Your task to perform on an android device: Empty the shopping cart on bestbuy. Add "panasonic triple a" to the cart on bestbuy, then select checkout. Image 0: 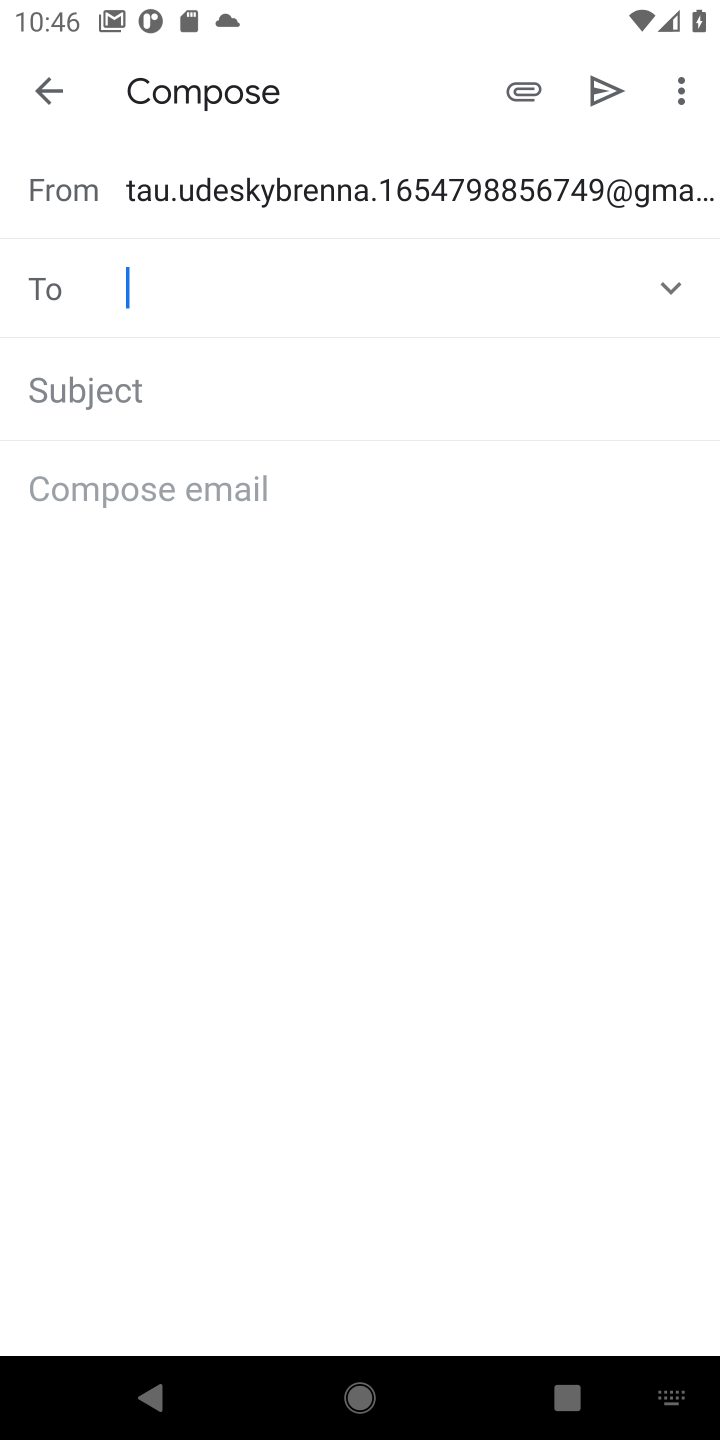
Step 0: press home button
Your task to perform on an android device: Empty the shopping cart on bestbuy. Add "panasonic triple a" to the cart on bestbuy, then select checkout. Image 1: 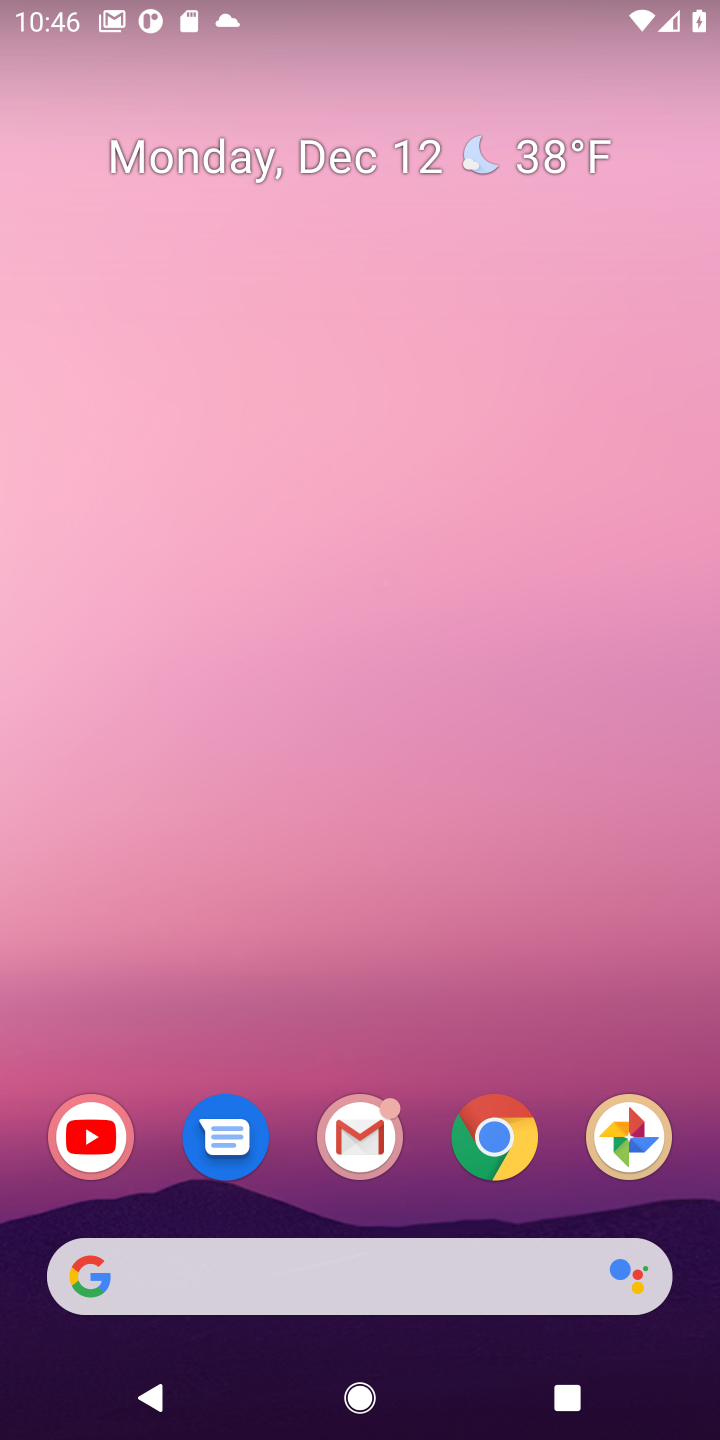
Step 1: click (400, 1273)
Your task to perform on an android device: Empty the shopping cart on bestbuy. Add "panasonic triple a" to the cart on bestbuy, then select checkout. Image 2: 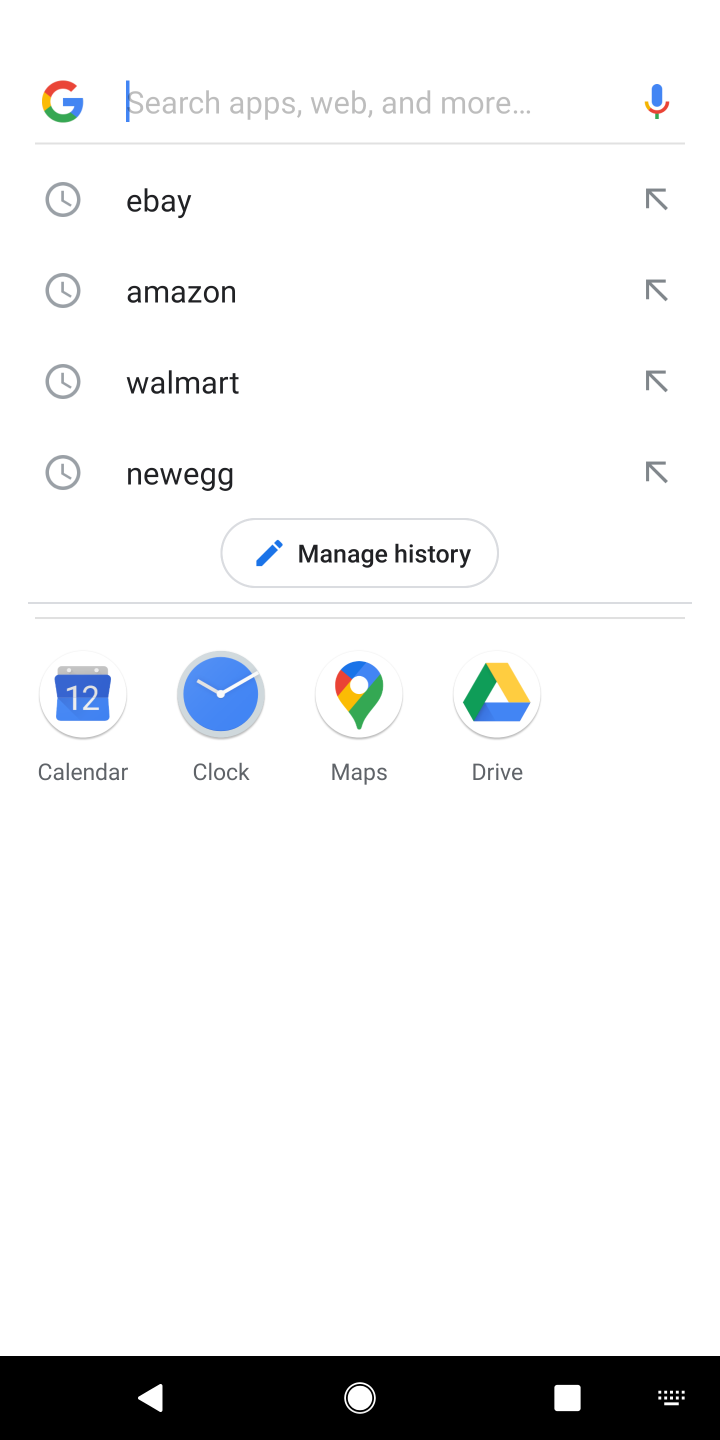
Step 2: type "bestbuy"
Your task to perform on an android device: Empty the shopping cart on bestbuy. Add "panasonic triple a" to the cart on bestbuy, then select checkout. Image 3: 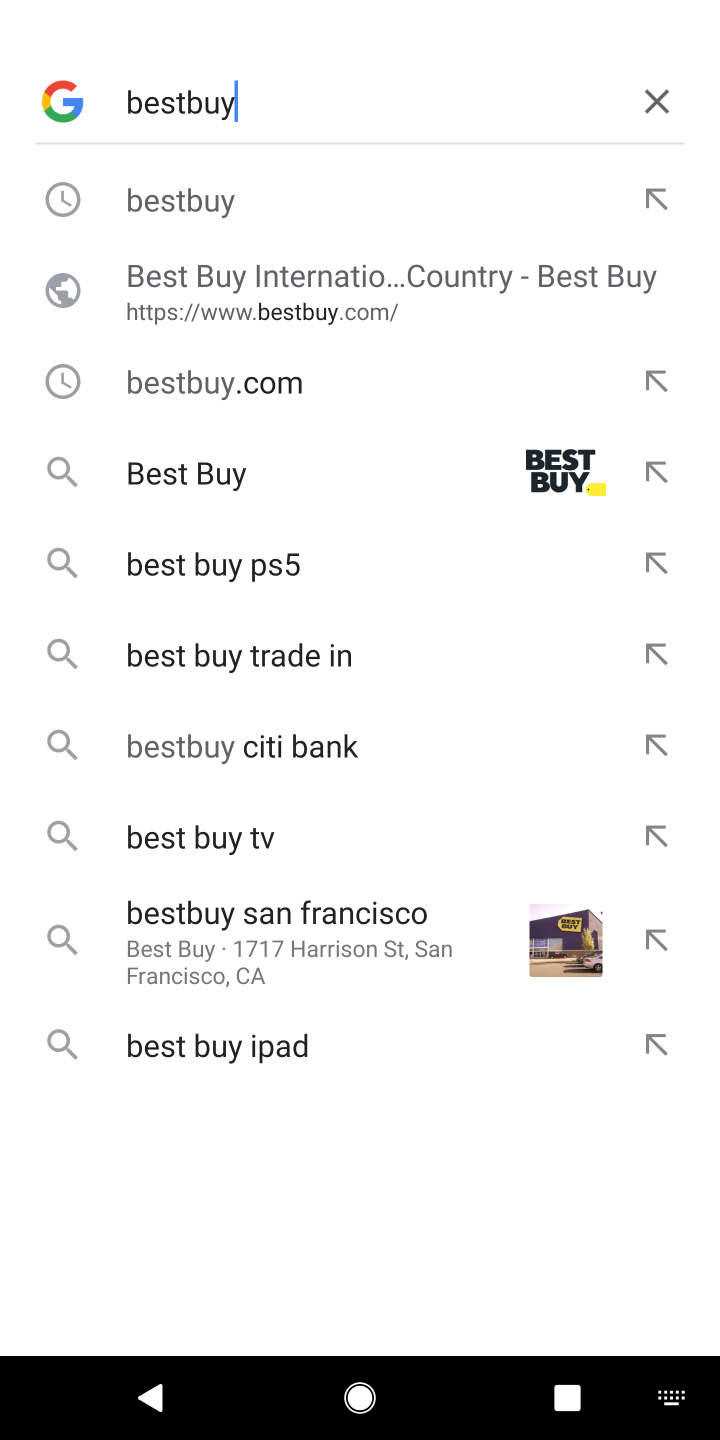
Step 3: click (251, 484)
Your task to perform on an android device: Empty the shopping cart on bestbuy. Add "panasonic triple a" to the cart on bestbuy, then select checkout. Image 4: 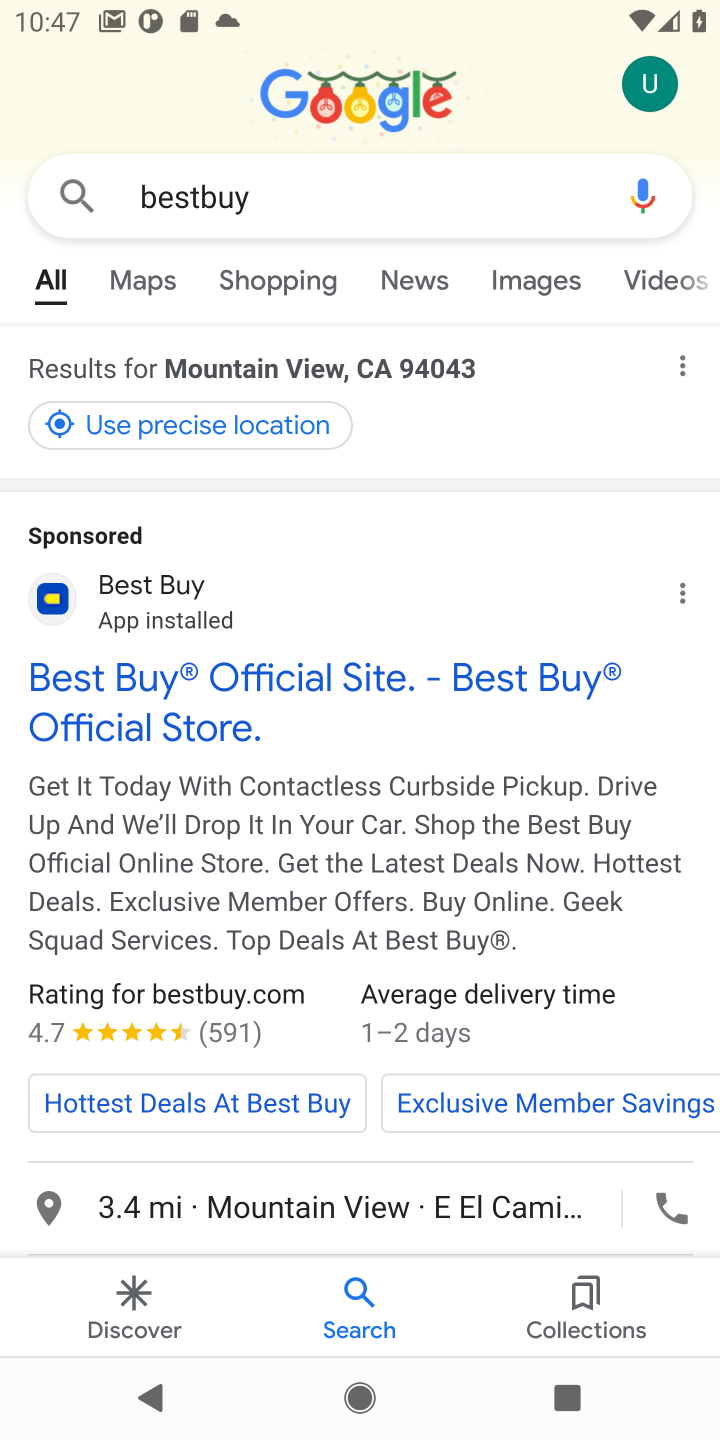
Step 4: click (157, 662)
Your task to perform on an android device: Empty the shopping cart on bestbuy. Add "panasonic triple a" to the cart on bestbuy, then select checkout. Image 5: 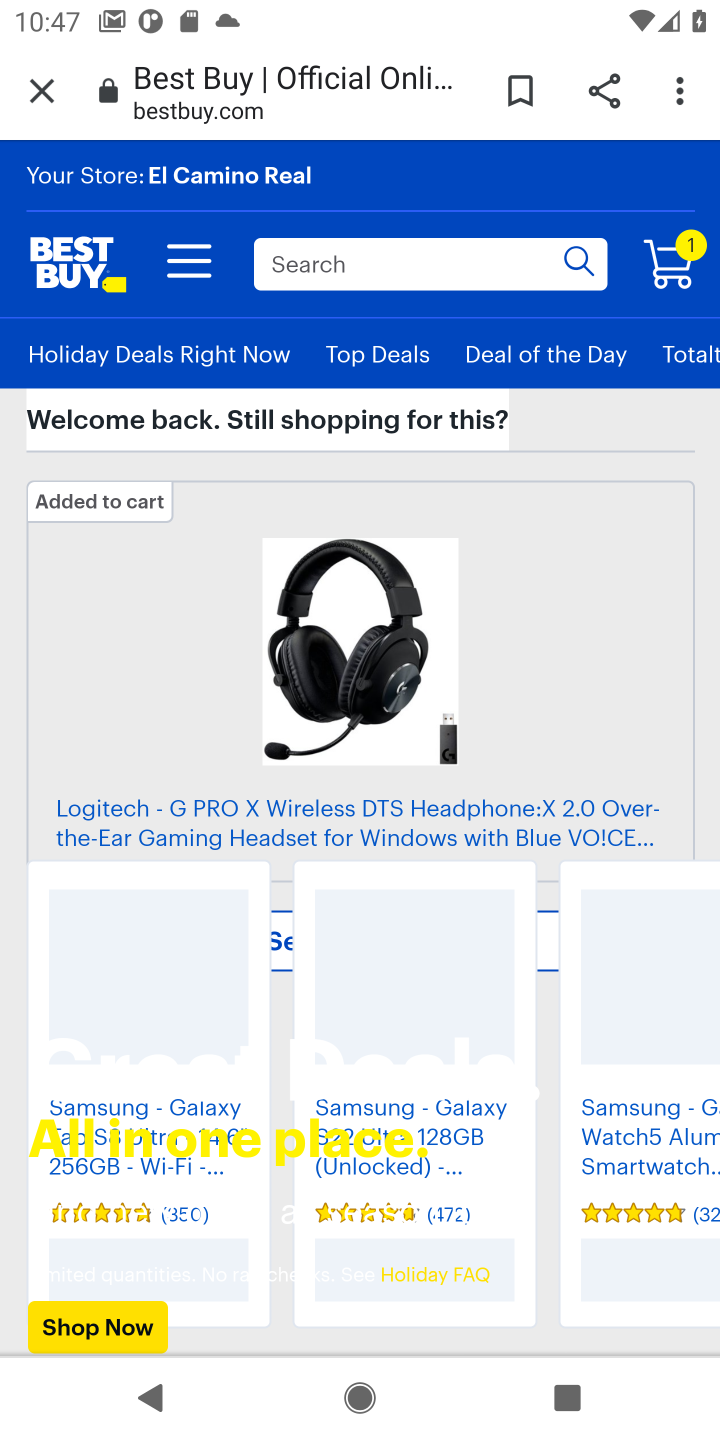
Step 5: click (386, 273)
Your task to perform on an android device: Empty the shopping cart on bestbuy. Add "panasonic triple a" to the cart on bestbuy, then select checkout. Image 6: 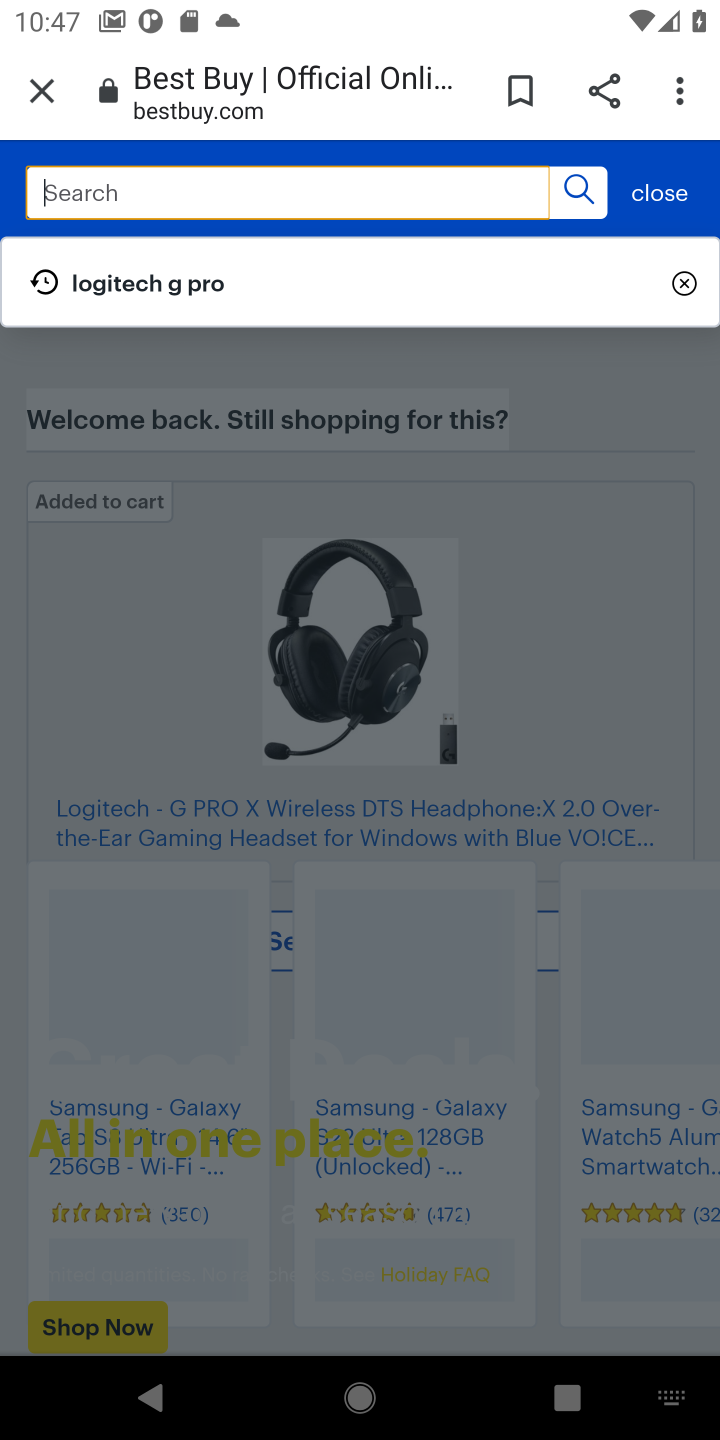
Step 6: type "panasonic triple a"
Your task to perform on an android device: Empty the shopping cart on bestbuy. Add "panasonic triple a" to the cart on bestbuy, then select checkout. Image 7: 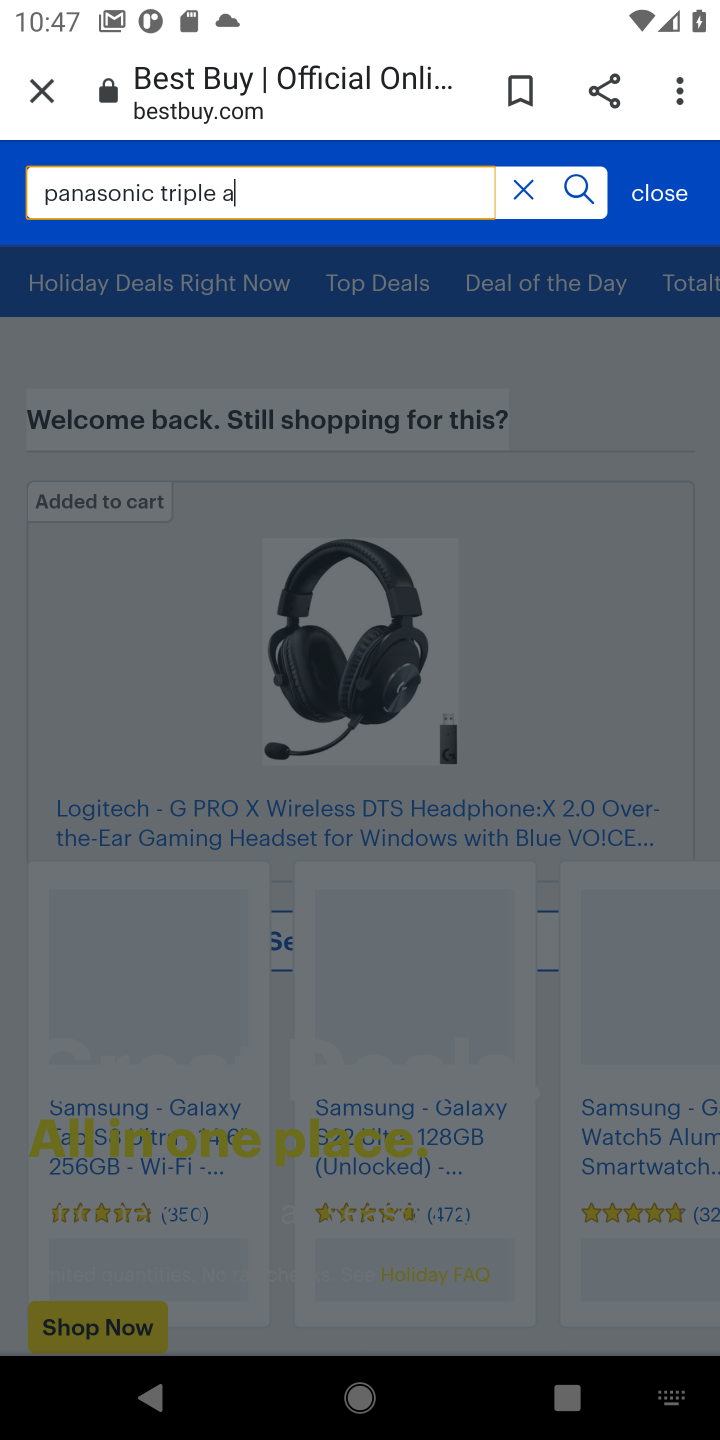
Step 7: click (587, 205)
Your task to perform on an android device: Empty the shopping cart on bestbuy. Add "panasonic triple a" to the cart on bestbuy, then select checkout. Image 8: 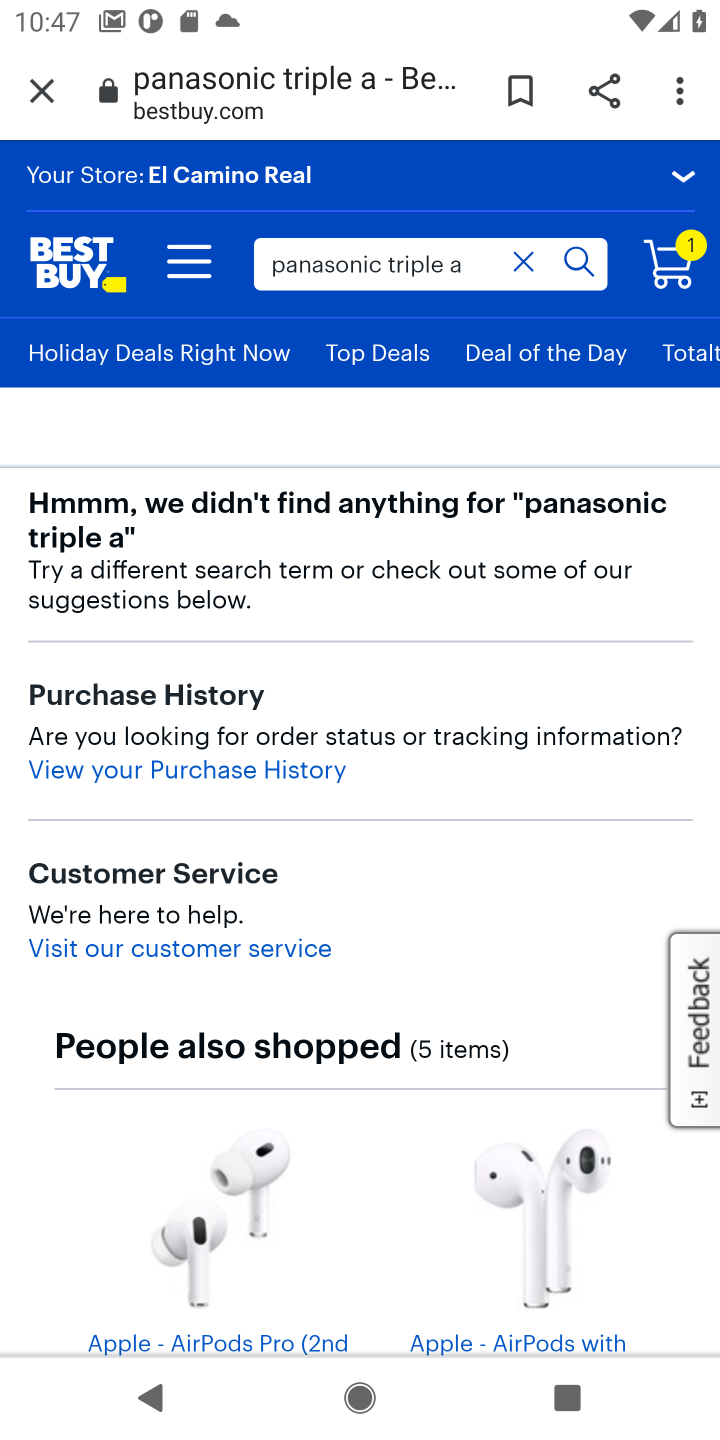
Step 8: click (305, 1209)
Your task to perform on an android device: Empty the shopping cart on bestbuy. Add "panasonic triple a" to the cart on bestbuy, then select checkout. Image 9: 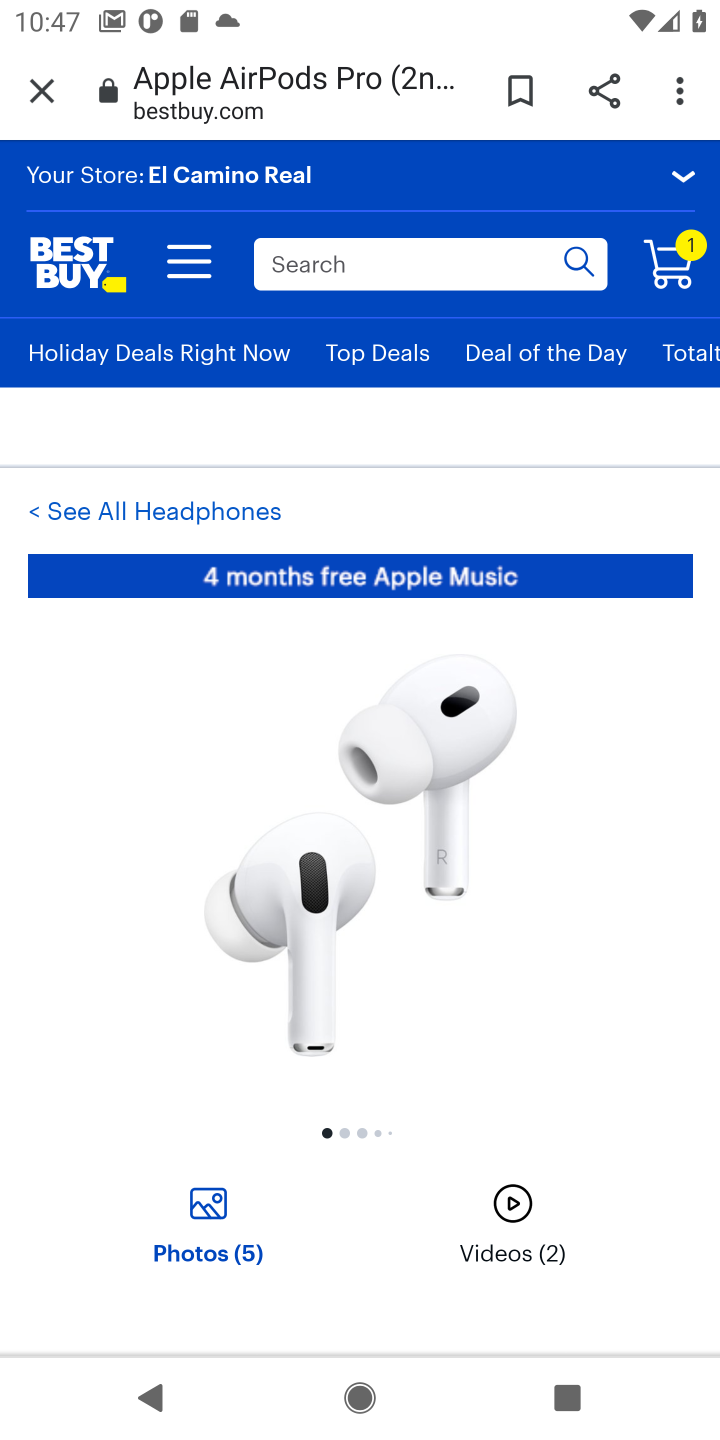
Step 9: drag from (295, 1217) to (299, 692)
Your task to perform on an android device: Empty the shopping cart on bestbuy. Add "panasonic triple a" to the cart on bestbuy, then select checkout. Image 10: 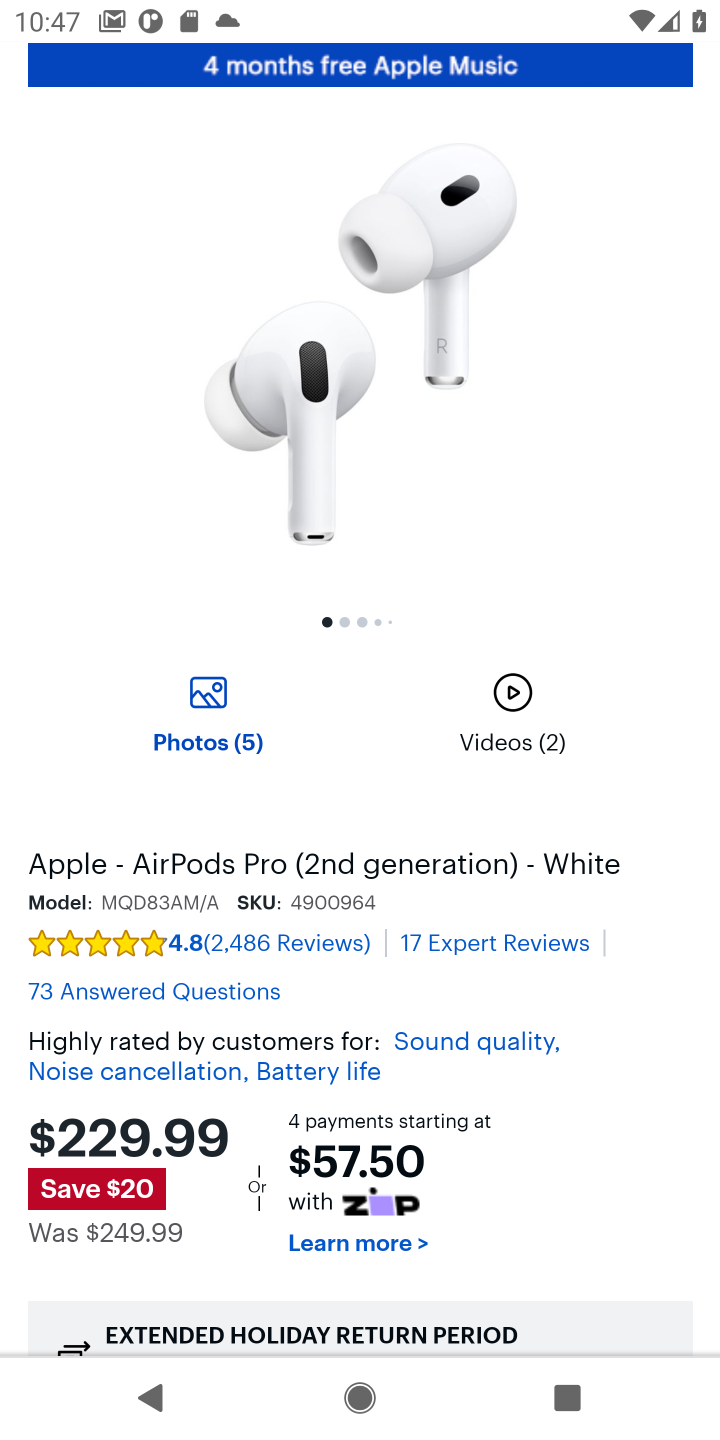
Step 10: drag from (505, 1232) to (505, 797)
Your task to perform on an android device: Empty the shopping cart on bestbuy. Add "panasonic triple a" to the cart on bestbuy, then select checkout. Image 11: 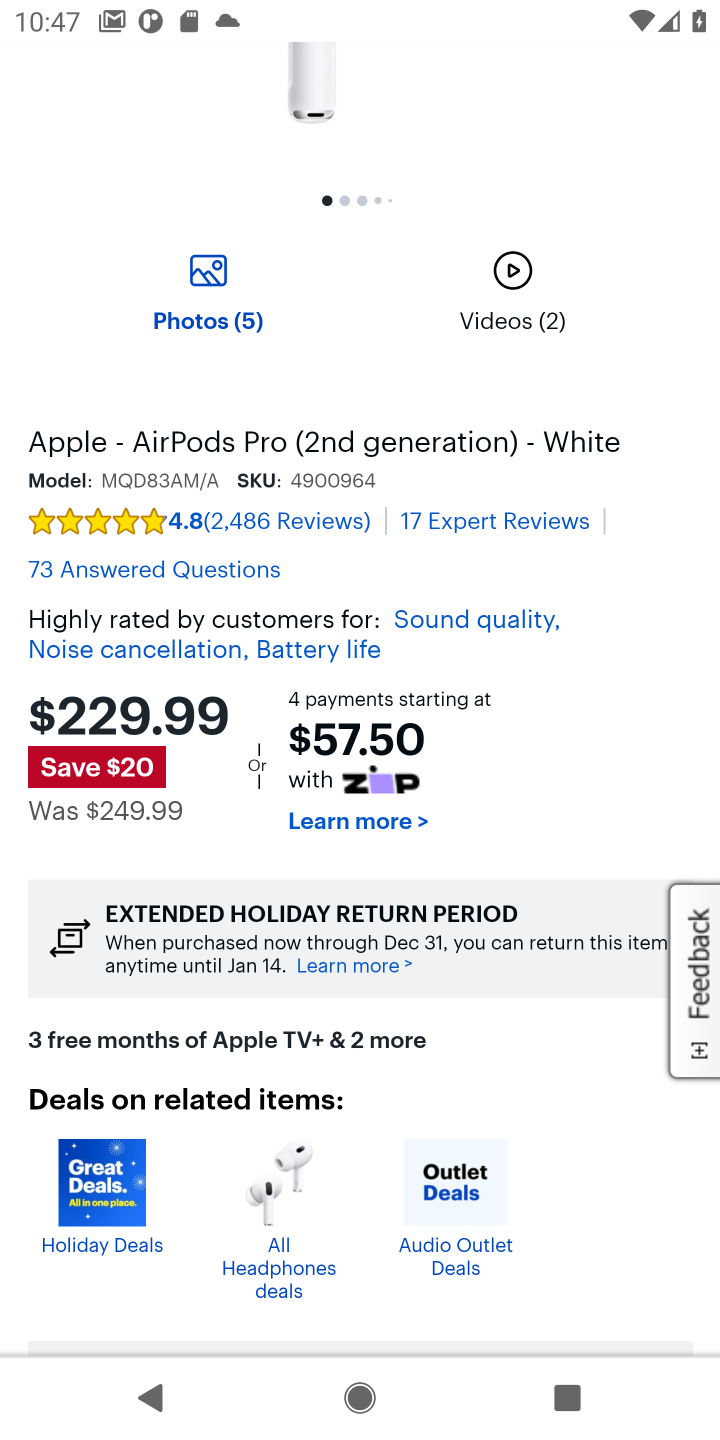
Step 11: drag from (562, 1134) to (536, 555)
Your task to perform on an android device: Empty the shopping cart on bestbuy. Add "panasonic triple a" to the cart on bestbuy, then select checkout. Image 12: 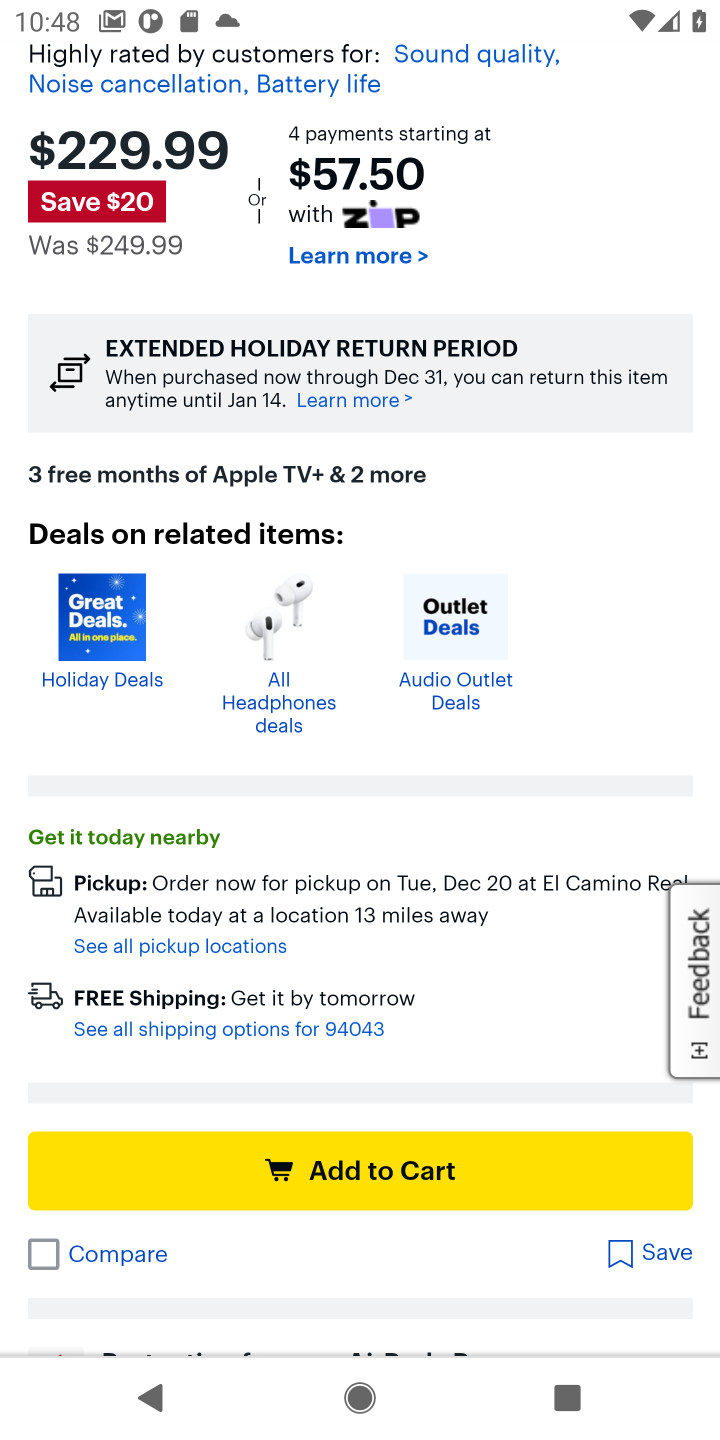
Step 12: click (427, 1148)
Your task to perform on an android device: Empty the shopping cart on bestbuy. Add "panasonic triple a" to the cart on bestbuy, then select checkout. Image 13: 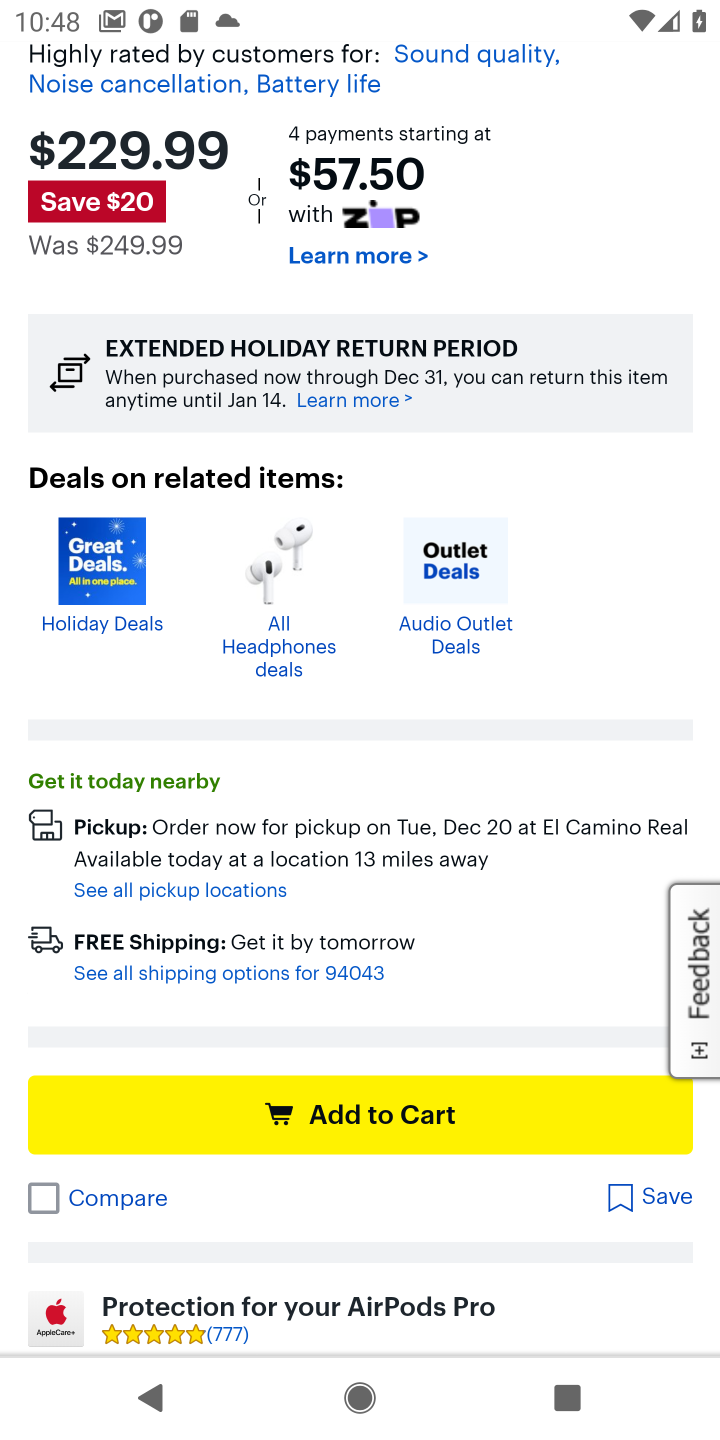
Step 13: task complete